Your task to perform on an android device: Open the stopwatch Image 0: 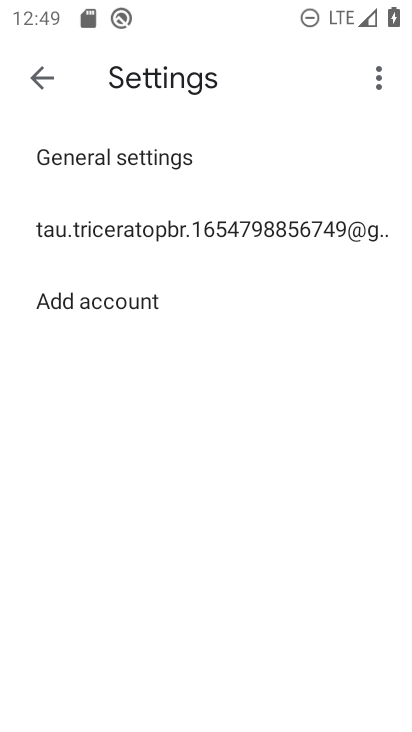
Step 0: press home button
Your task to perform on an android device: Open the stopwatch Image 1: 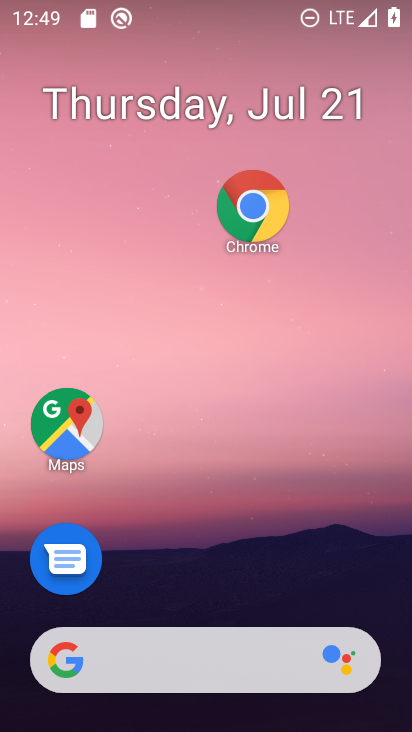
Step 1: drag from (201, 623) to (214, 211)
Your task to perform on an android device: Open the stopwatch Image 2: 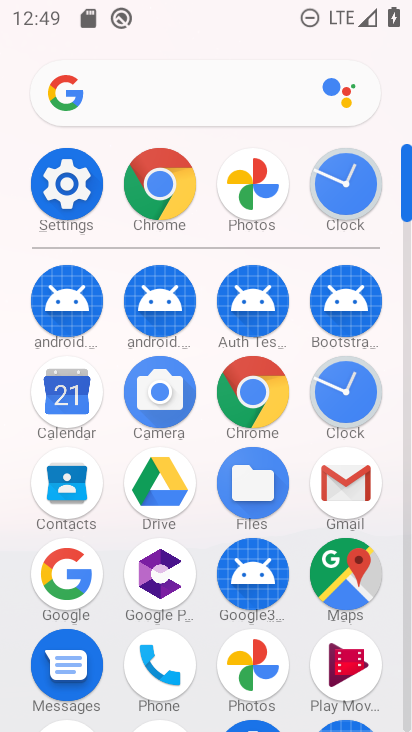
Step 2: click (346, 390)
Your task to perform on an android device: Open the stopwatch Image 3: 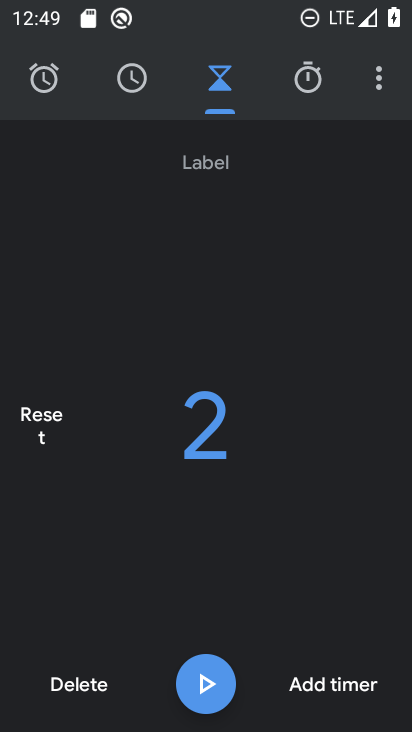
Step 3: click (304, 103)
Your task to perform on an android device: Open the stopwatch Image 4: 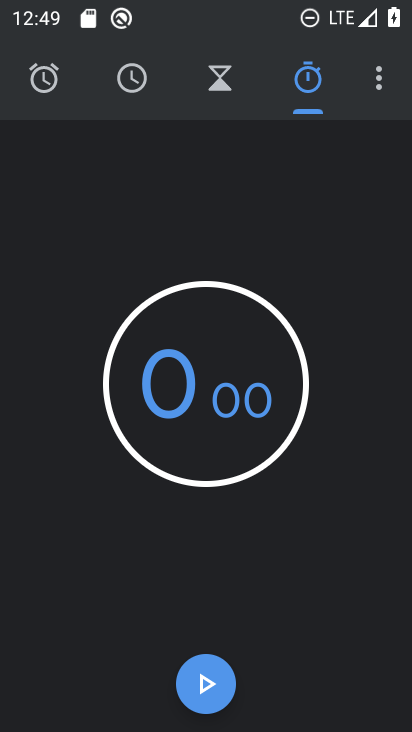
Step 4: click (191, 692)
Your task to perform on an android device: Open the stopwatch Image 5: 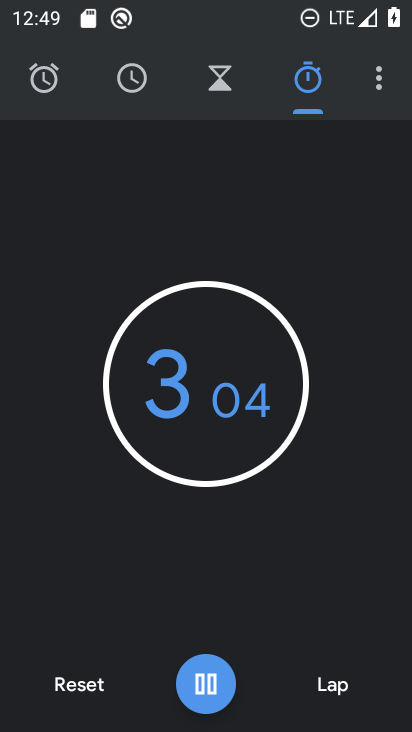
Step 5: task complete